Your task to perform on an android device: What's the weather going to be tomorrow? Image 0: 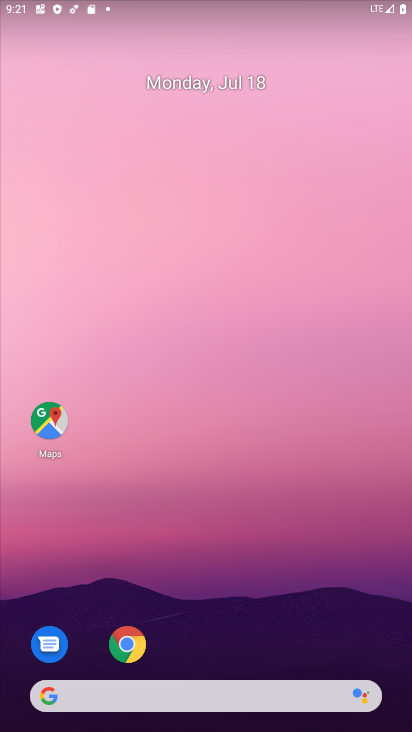
Step 0: drag from (208, 662) to (166, 7)
Your task to perform on an android device: What's the weather going to be tomorrow? Image 1: 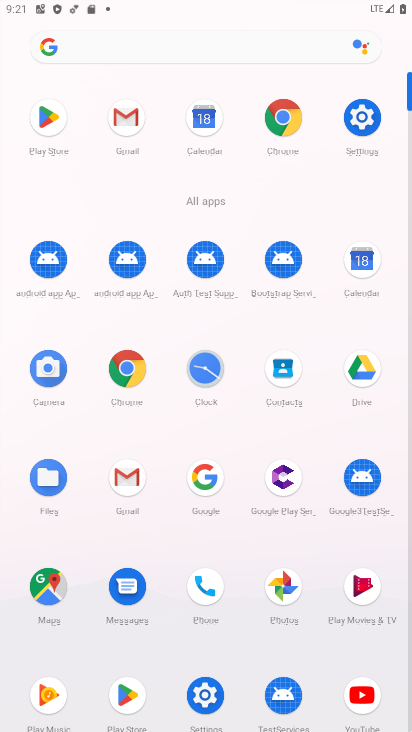
Step 1: click (204, 478)
Your task to perform on an android device: What's the weather going to be tomorrow? Image 2: 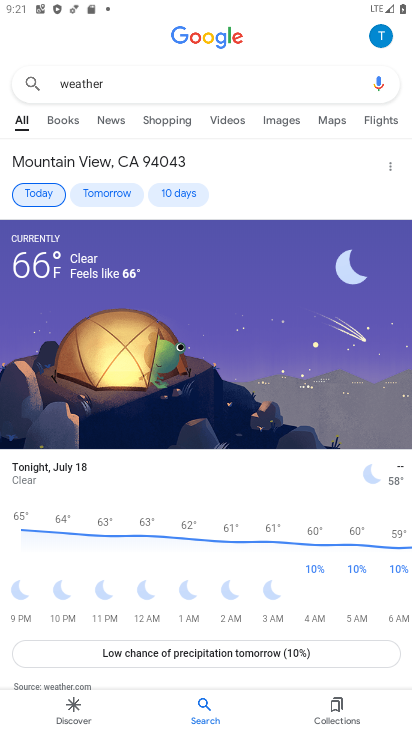
Step 2: click (60, 198)
Your task to perform on an android device: What's the weather going to be tomorrow? Image 3: 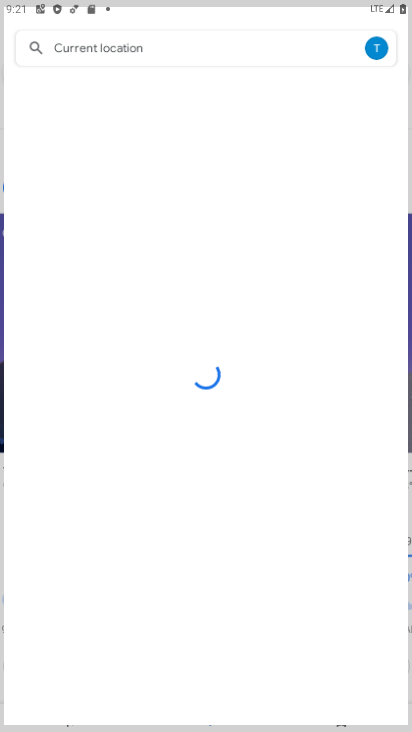
Step 3: click (86, 193)
Your task to perform on an android device: What's the weather going to be tomorrow? Image 4: 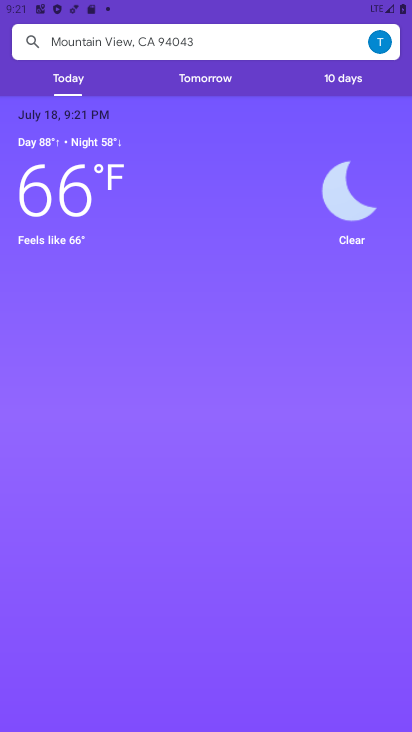
Step 4: click (188, 81)
Your task to perform on an android device: What's the weather going to be tomorrow? Image 5: 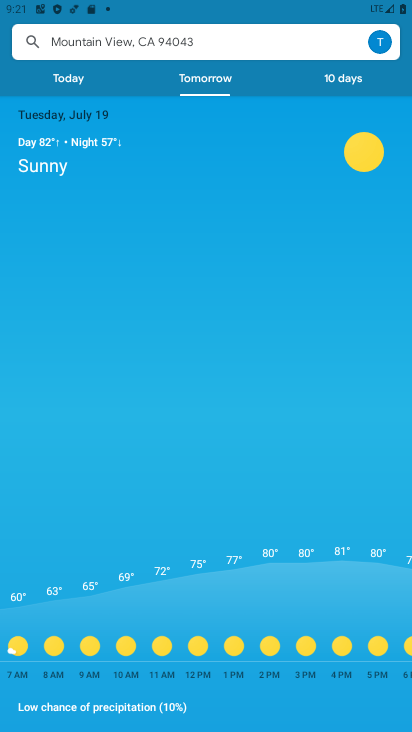
Step 5: task complete